Your task to perform on an android device: turn notification dots off Image 0: 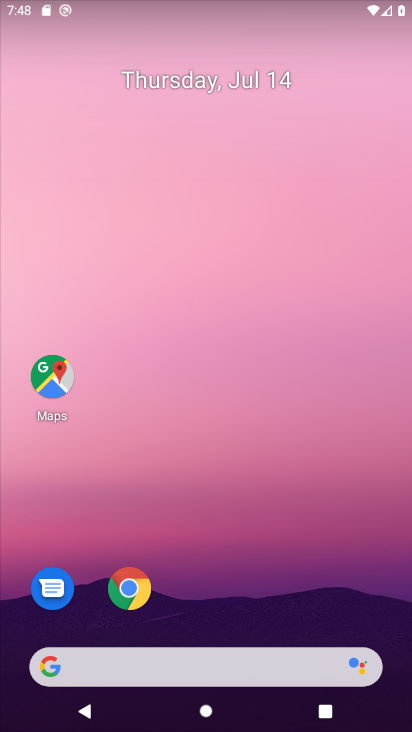
Step 0: drag from (325, 551) to (373, 62)
Your task to perform on an android device: turn notification dots off Image 1: 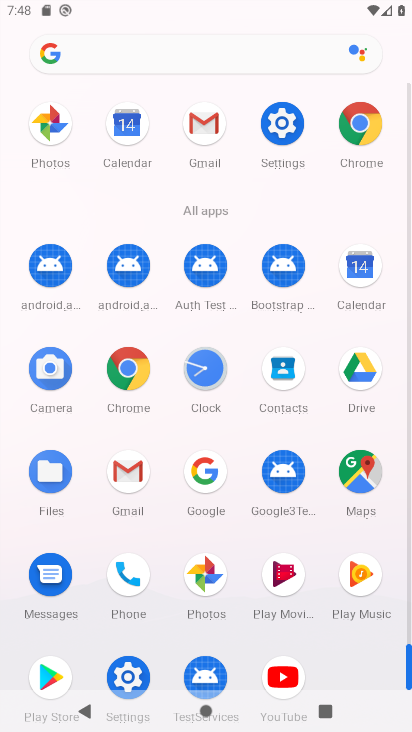
Step 1: click (284, 125)
Your task to perform on an android device: turn notification dots off Image 2: 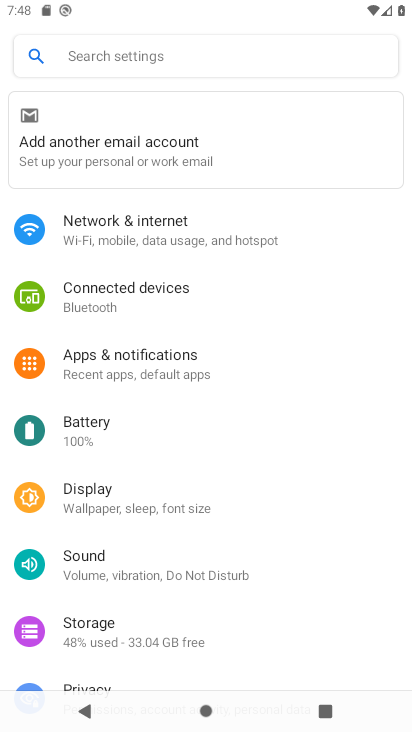
Step 2: drag from (350, 374) to (348, 301)
Your task to perform on an android device: turn notification dots off Image 3: 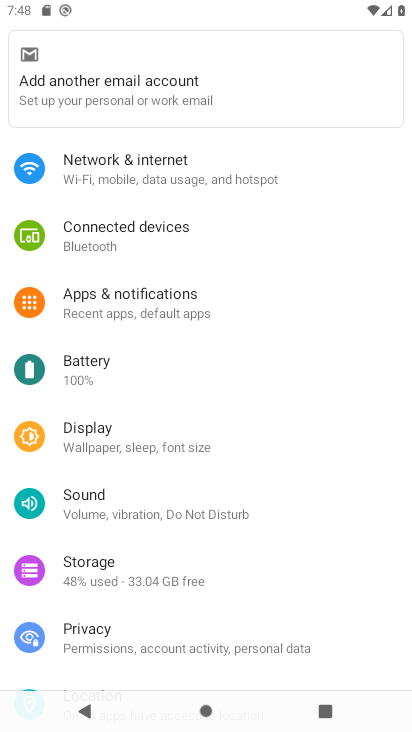
Step 3: drag from (354, 360) to (352, 286)
Your task to perform on an android device: turn notification dots off Image 4: 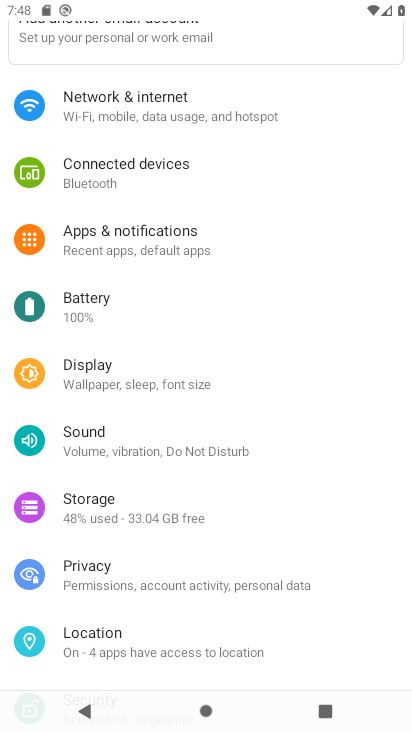
Step 4: drag from (349, 362) to (345, 296)
Your task to perform on an android device: turn notification dots off Image 5: 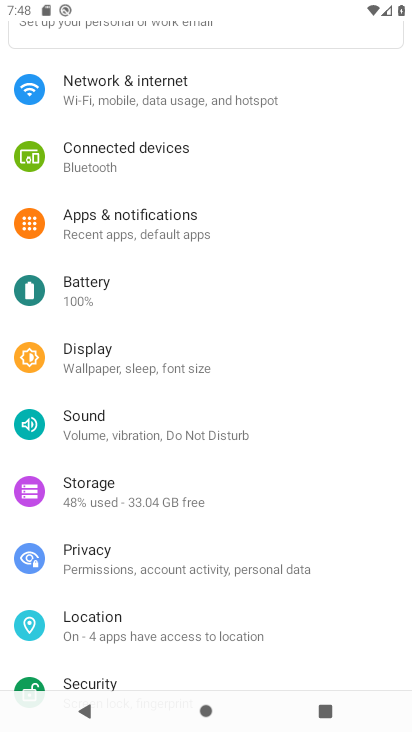
Step 5: drag from (344, 369) to (346, 303)
Your task to perform on an android device: turn notification dots off Image 6: 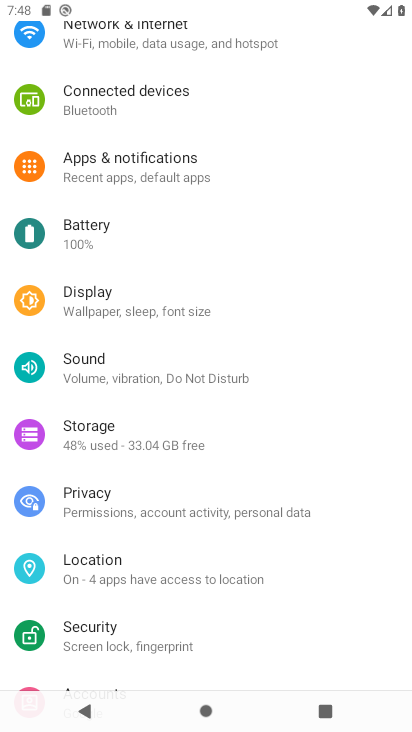
Step 6: drag from (355, 408) to (352, 309)
Your task to perform on an android device: turn notification dots off Image 7: 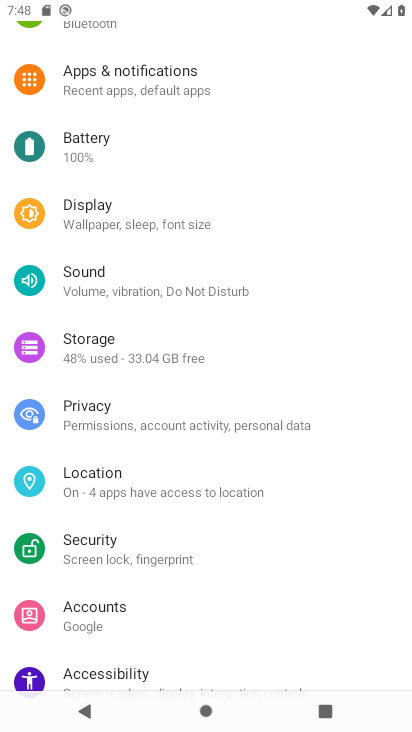
Step 7: drag from (366, 407) to (366, 327)
Your task to perform on an android device: turn notification dots off Image 8: 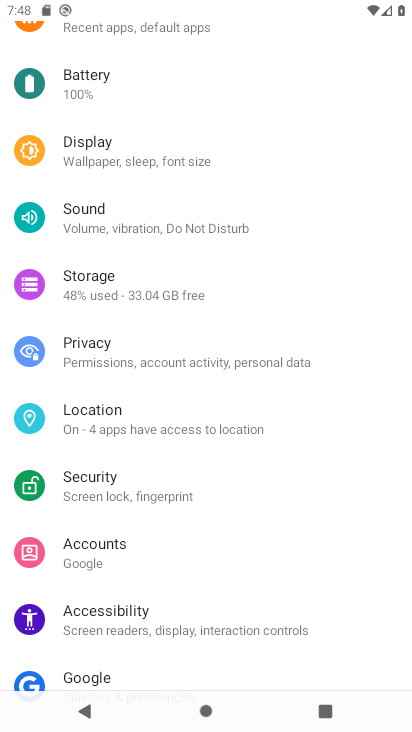
Step 8: drag from (358, 427) to (356, 344)
Your task to perform on an android device: turn notification dots off Image 9: 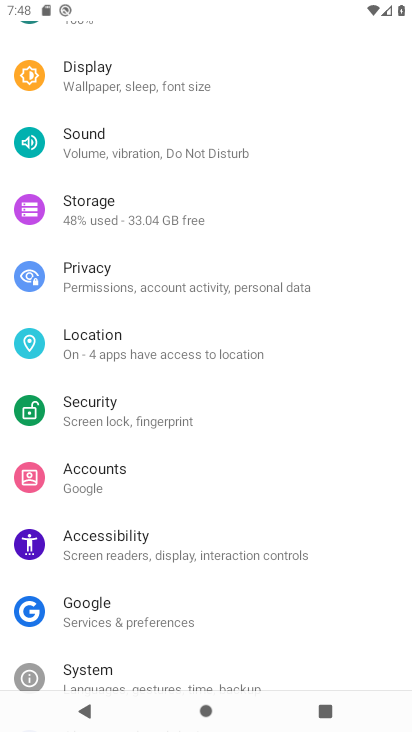
Step 9: drag from (356, 436) to (364, 346)
Your task to perform on an android device: turn notification dots off Image 10: 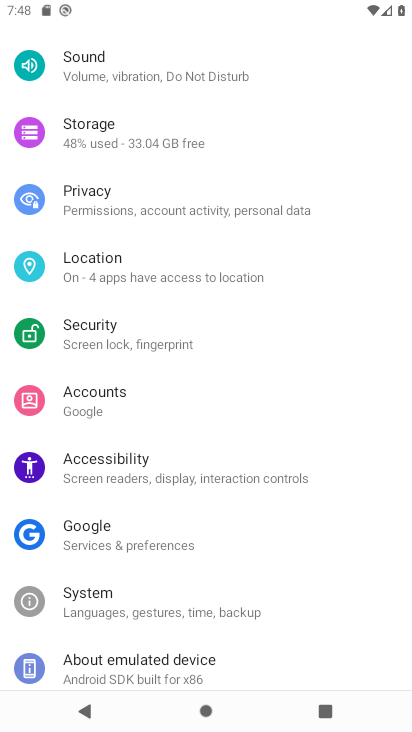
Step 10: drag from (365, 409) to (366, 309)
Your task to perform on an android device: turn notification dots off Image 11: 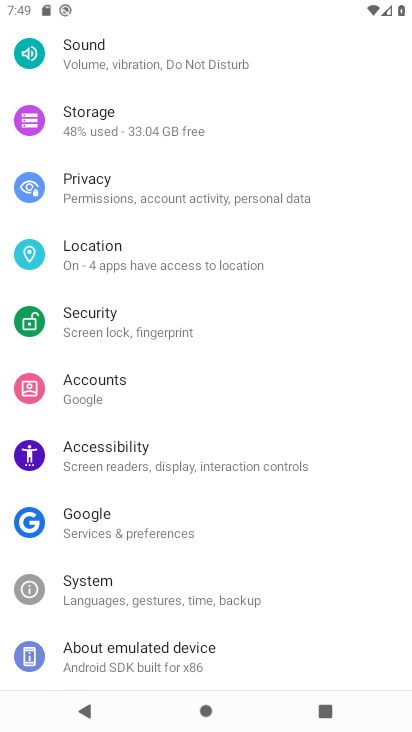
Step 11: drag from (365, 224) to (366, 295)
Your task to perform on an android device: turn notification dots off Image 12: 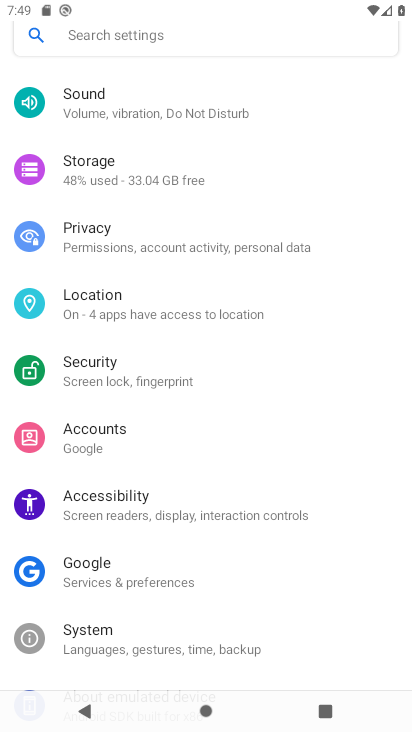
Step 12: drag from (368, 238) to (368, 295)
Your task to perform on an android device: turn notification dots off Image 13: 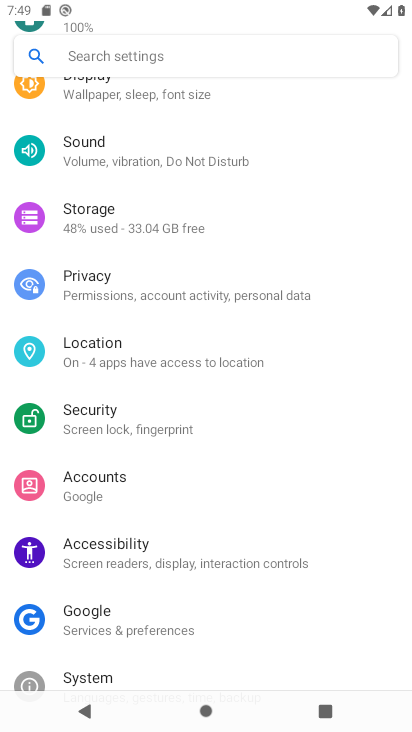
Step 13: drag from (361, 237) to (361, 305)
Your task to perform on an android device: turn notification dots off Image 14: 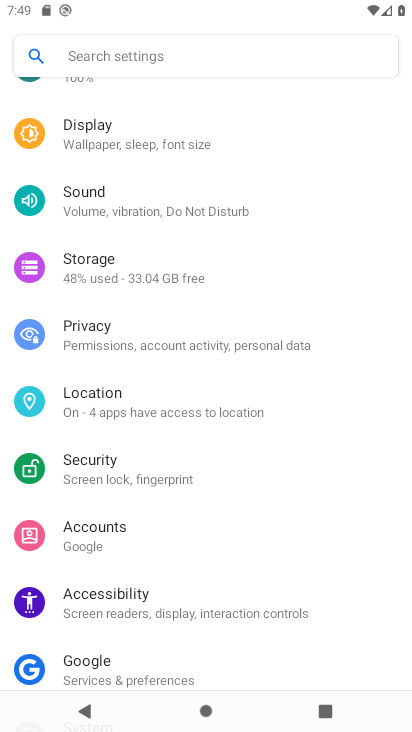
Step 14: drag from (365, 232) to (365, 319)
Your task to perform on an android device: turn notification dots off Image 15: 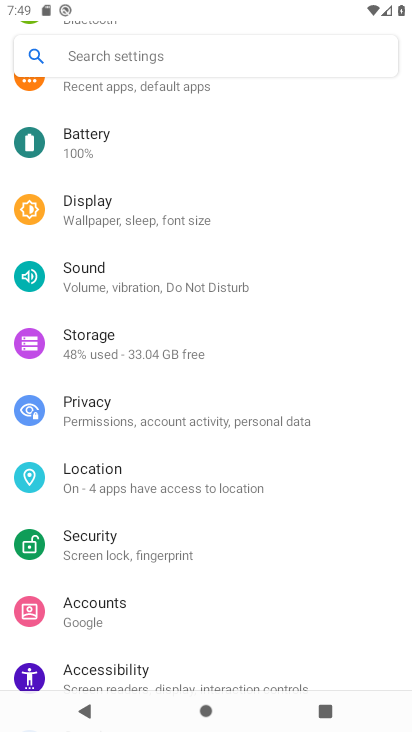
Step 15: drag from (365, 247) to (372, 327)
Your task to perform on an android device: turn notification dots off Image 16: 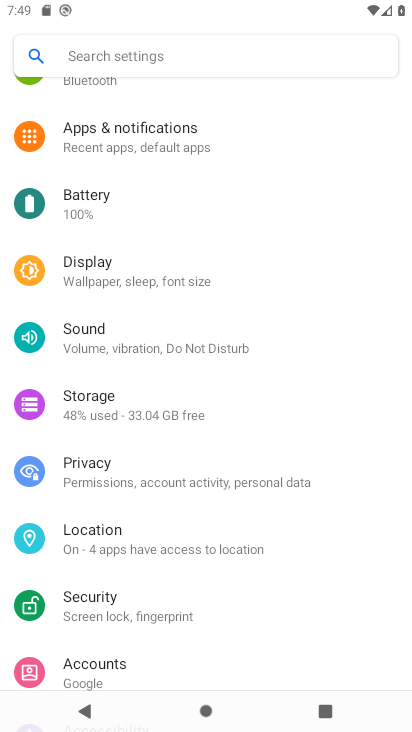
Step 16: drag from (374, 262) to (379, 337)
Your task to perform on an android device: turn notification dots off Image 17: 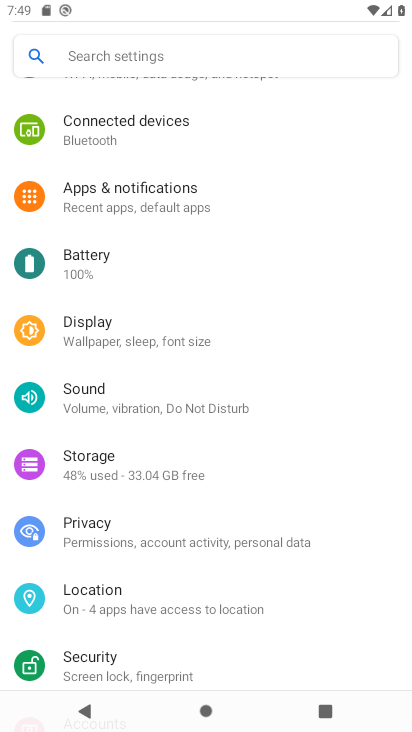
Step 17: drag from (363, 228) to (375, 422)
Your task to perform on an android device: turn notification dots off Image 18: 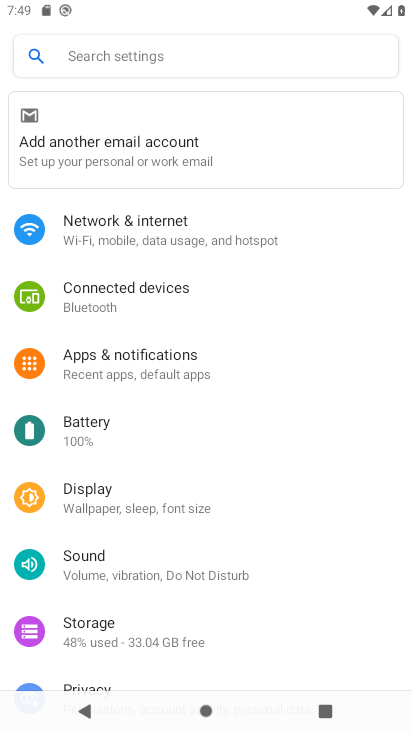
Step 18: drag from (348, 244) to (345, 374)
Your task to perform on an android device: turn notification dots off Image 19: 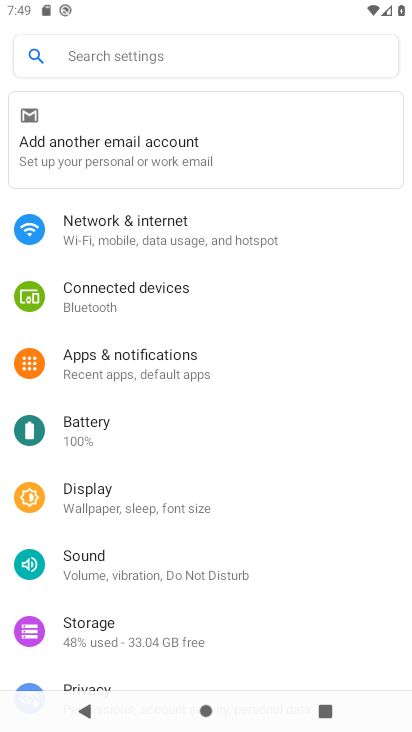
Step 19: click (254, 362)
Your task to perform on an android device: turn notification dots off Image 20: 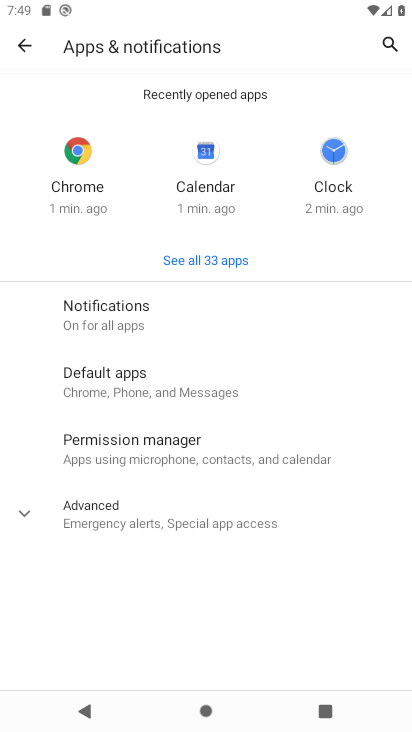
Step 20: click (204, 322)
Your task to perform on an android device: turn notification dots off Image 21: 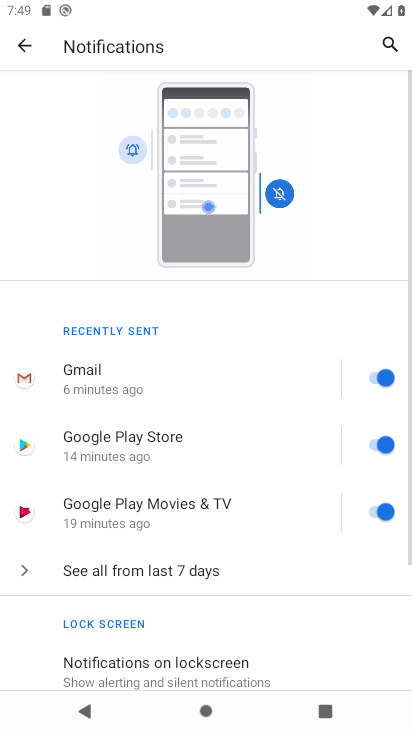
Step 21: drag from (281, 418) to (275, 315)
Your task to perform on an android device: turn notification dots off Image 22: 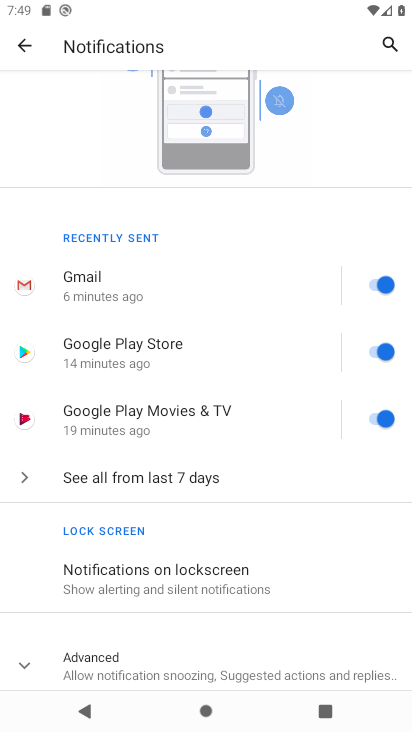
Step 22: drag from (268, 410) to (270, 326)
Your task to perform on an android device: turn notification dots off Image 23: 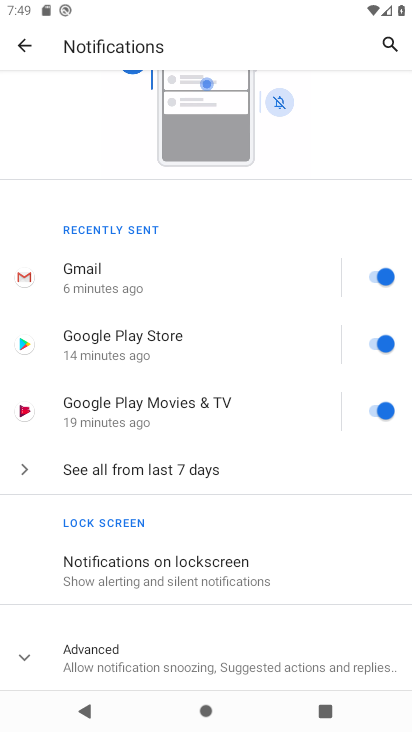
Step 23: click (317, 634)
Your task to perform on an android device: turn notification dots off Image 24: 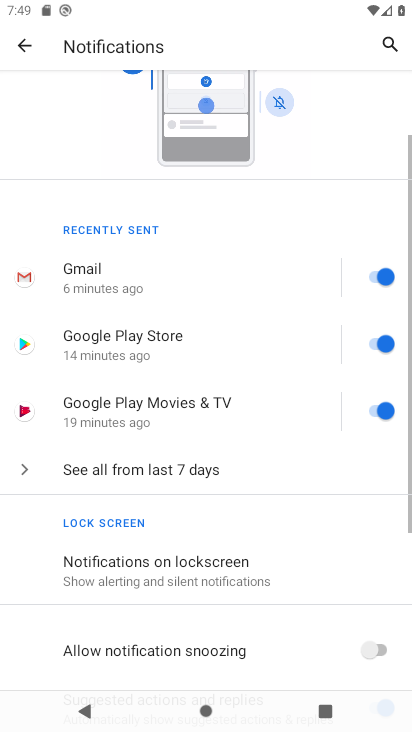
Step 24: drag from (328, 531) to (332, 456)
Your task to perform on an android device: turn notification dots off Image 25: 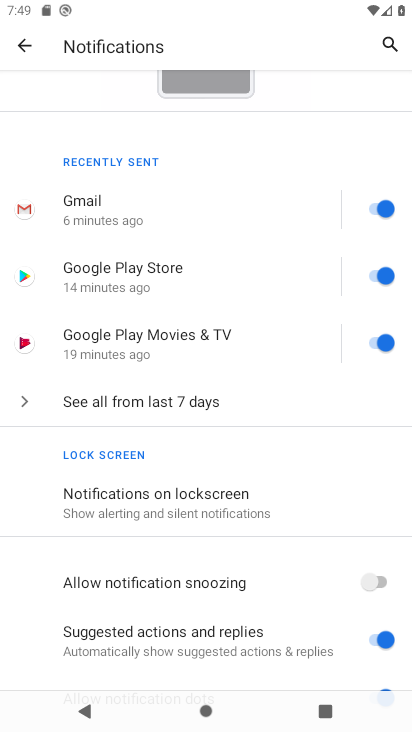
Step 25: drag from (327, 528) to (336, 433)
Your task to perform on an android device: turn notification dots off Image 26: 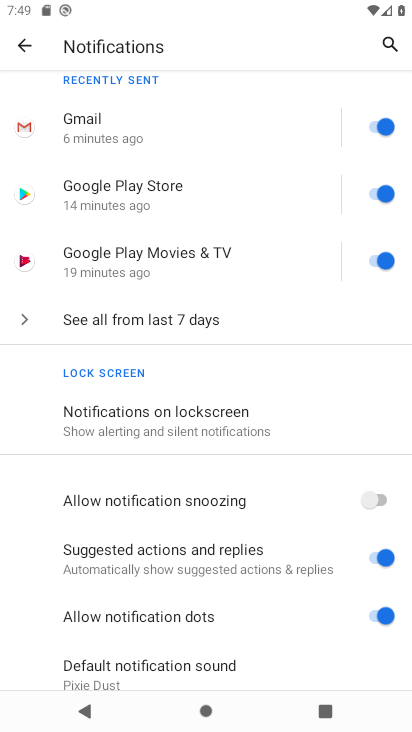
Step 26: drag from (324, 527) to (322, 429)
Your task to perform on an android device: turn notification dots off Image 27: 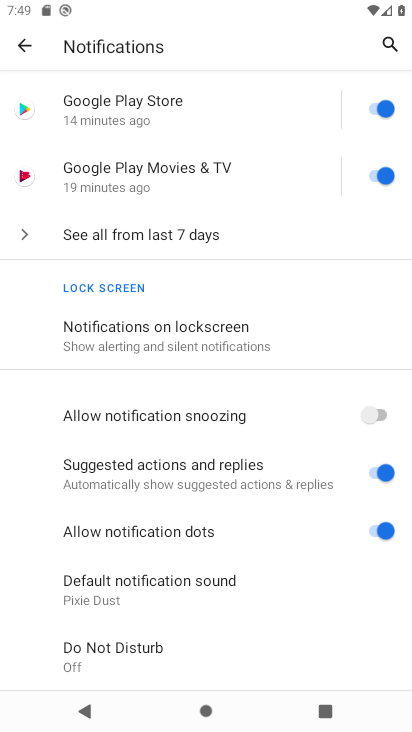
Step 27: drag from (316, 551) to (321, 425)
Your task to perform on an android device: turn notification dots off Image 28: 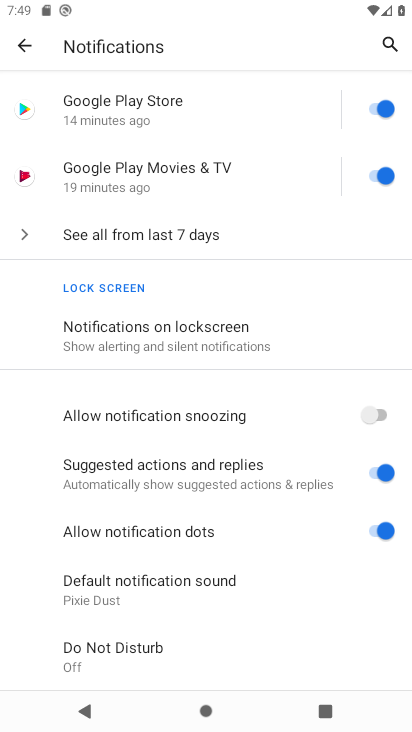
Step 28: click (376, 535)
Your task to perform on an android device: turn notification dots off Image 29: 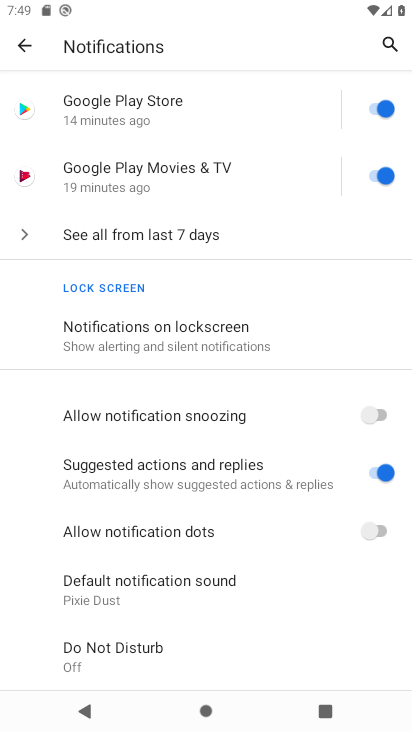
Step 29: task complete